Your task to perform on an android device: delete the emails in spam in the gmail app Image 0: 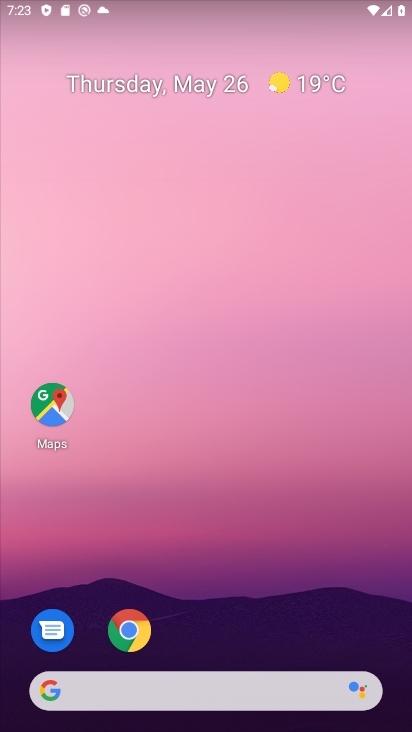
Step 0: drag from (277, 617) to (247, 104)
Your task to perform on an android device: delete the emails in spam in the gmail app Image 1: 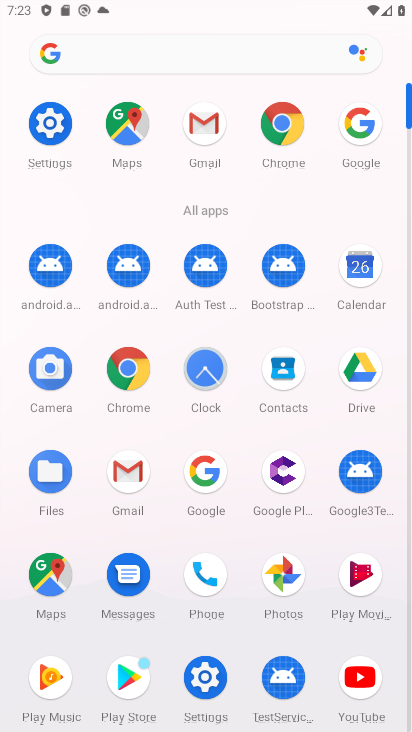
Step 1: click (200, 120)
Your task to perform on an android device: delete the emails in spam in the gmail app Image 2: 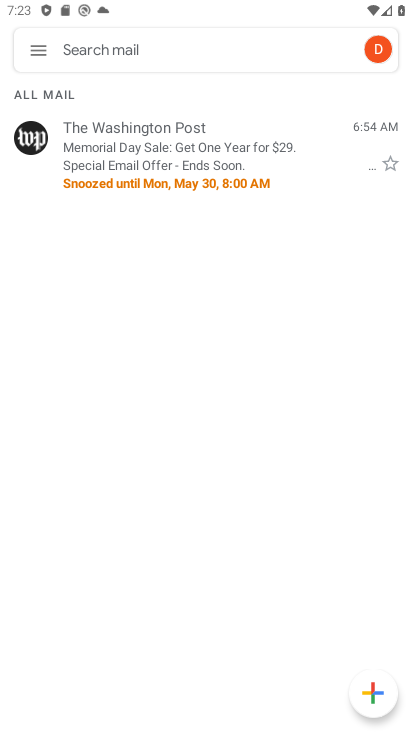
Step 2: click (35, 42)
Your task to perform on an android device: delete the emails in spam in the gmail app Image 3: 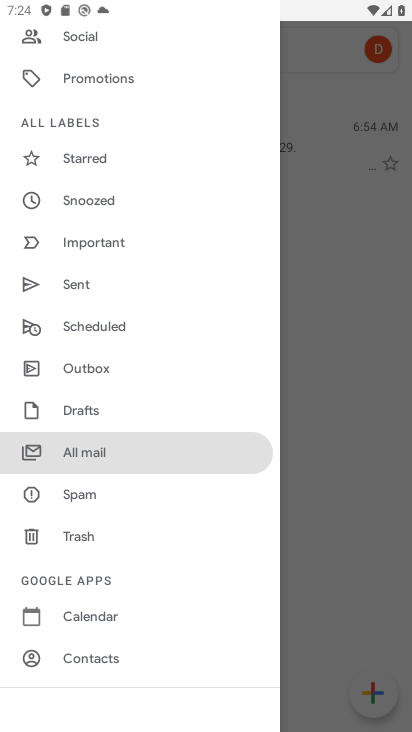
Step 3: click (84, 499)
Your task to perform on an android device: delete the emails in spam in the gmail app Image 4: 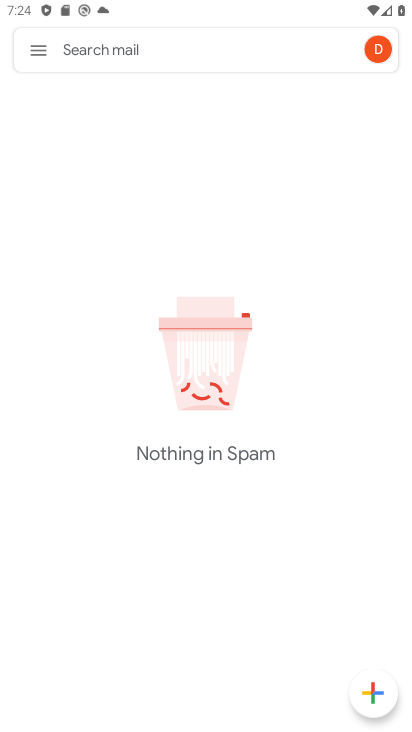
Step 4: task complete